Your task to perform on an android device: open app "Gmail" Image 0: 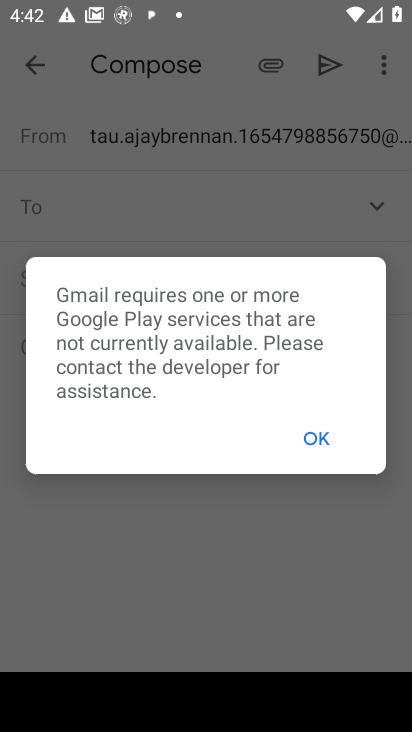
Step 0: press home button
Your task to perform on an android device: open app "Gmail" Image 1: 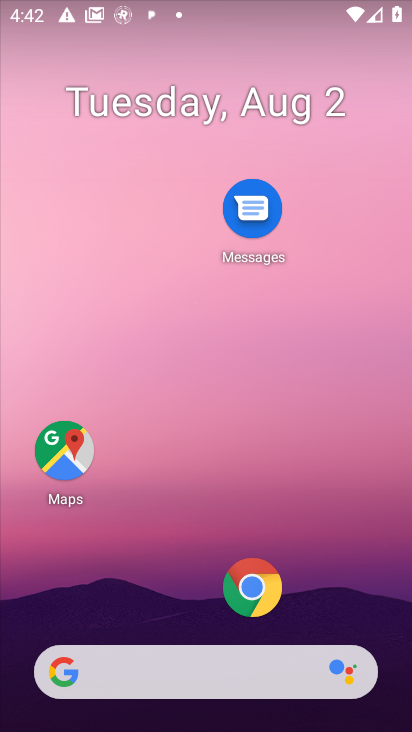
Step 1: drag from (177, 577) to (167, 179)
Your task to perform on an android device: open app "Gmail" Image 2: 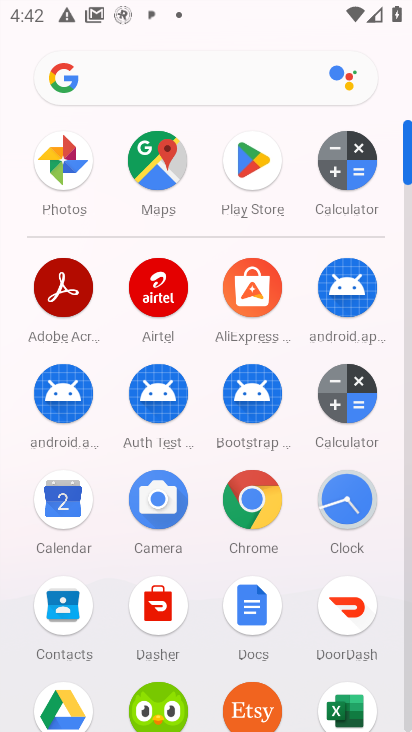
Step 2: click (246, 170)
Your task to perform on an android device: open app "Gmail" Image 3: 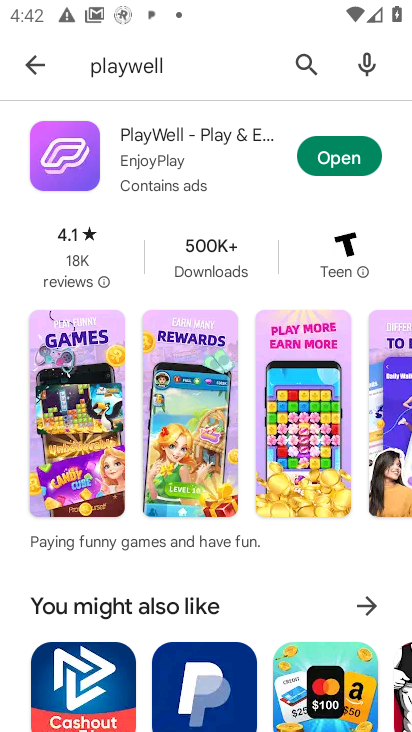
Step 3: click (305, 73)
Your task to perform on an android device: open app "Gmail" Image 4: 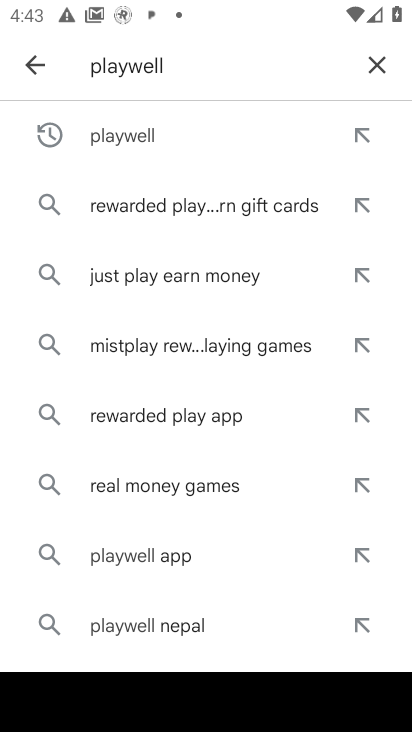
Step 4: click (362, 76)
Your task to perform on an android device: open app "Gmail" Image 5: 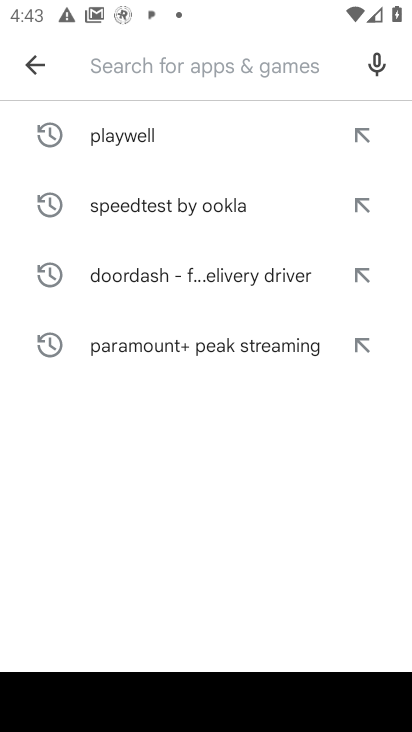
Step 5: type "Gmail"
Your task to perform on an android device: open app "Gmail" Image 6: 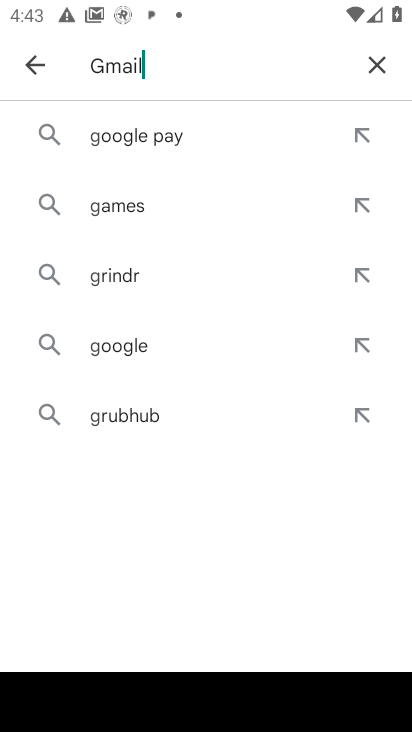
Step 6: type ""
Your task to perform on an android device: open app "Gmail" Image 7: 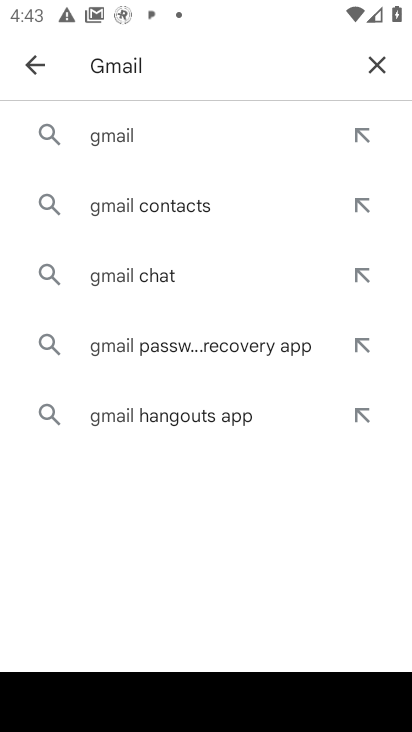
Step 7: click (136, 135)
Your task to perform on an android device: open app "Gmail" Image 8: 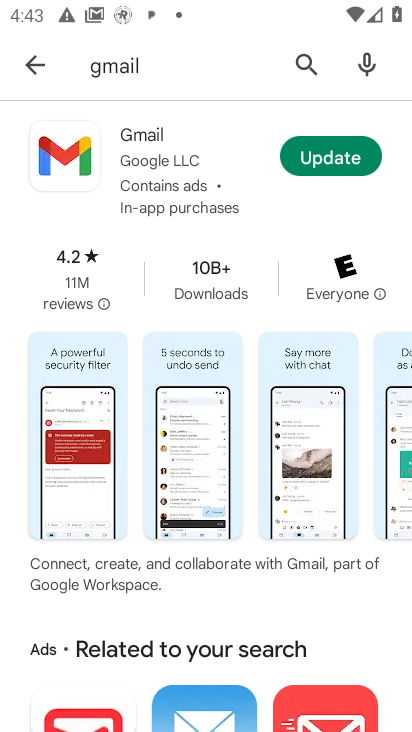
Step 8: click (210, 162)
Your task to perform on an android device: open app "Gmail" Image 9: 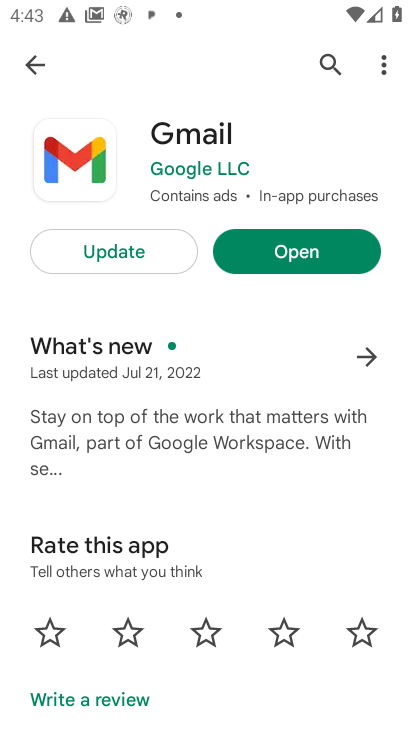
Step 9: click (284, 249)
Your task to perform on an android device: open app "Gmail" Image 10: 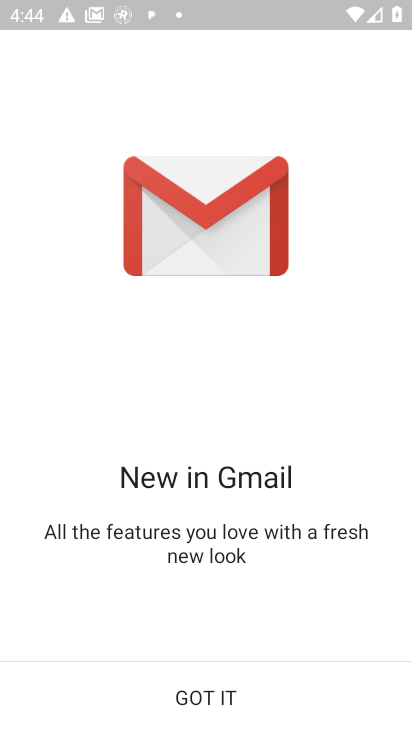
Step 10: press home button
Your task to perform on an android device: open app "Gmail" Image 11: 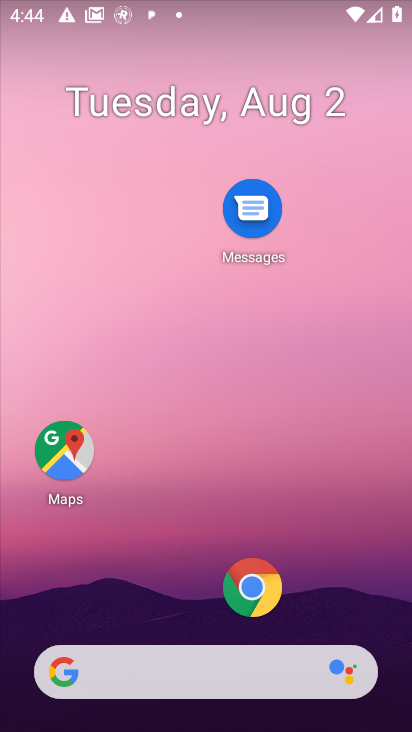
Step 11: drag from (184, 577) to (195, 212)
Your task to perform on an android device: open app "Gmail" Image 12: 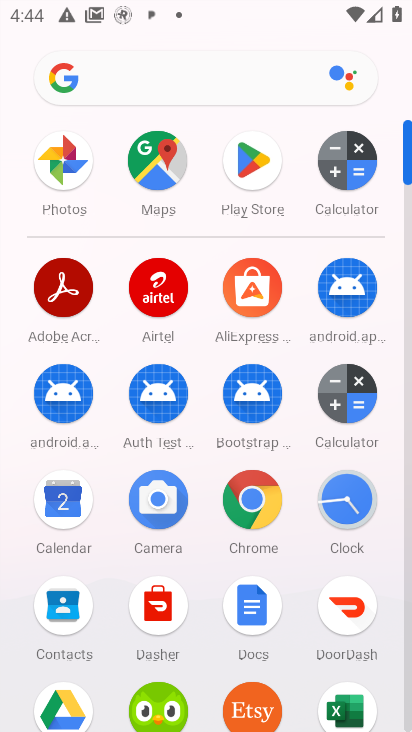
Step 12: click (242, 171)
Your task to perform on an android device: open app "Gmail" Image 13: 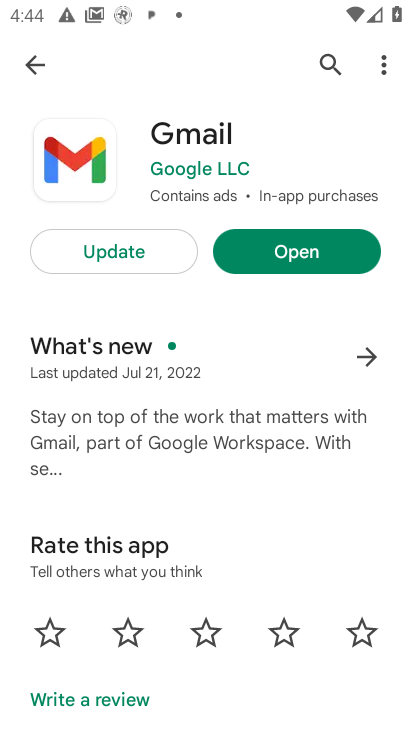
Step 13: click (294, 237)
Your task to perform on an android device: open app "Gmail" Image 14: 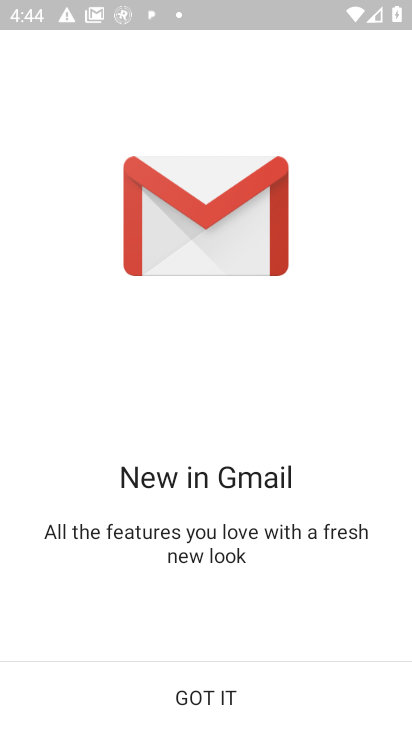
Step 14: task complete